Your task to perform on an android device: search for starred emails in the gmail app Image 0: 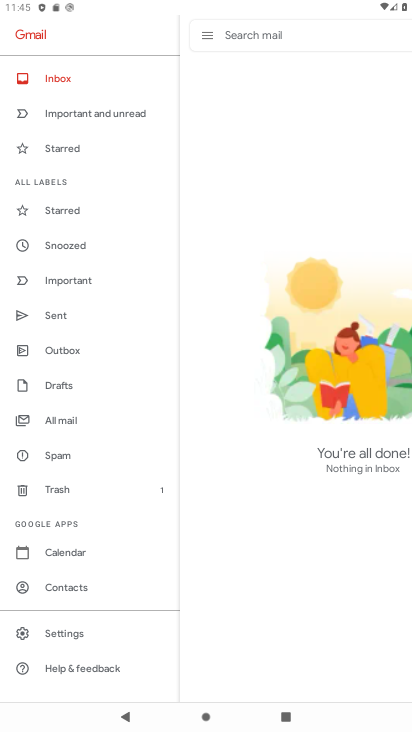
Step 0: click (66, 216)
Your task to perform on an android device: search for starred emails in the gmail app Image 1: 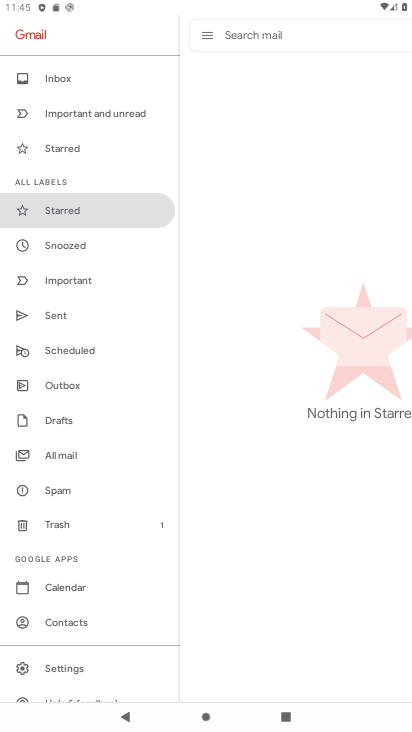
Step 1: task complete